Your task to perform on an android device: Go to wifi settings Image 0: 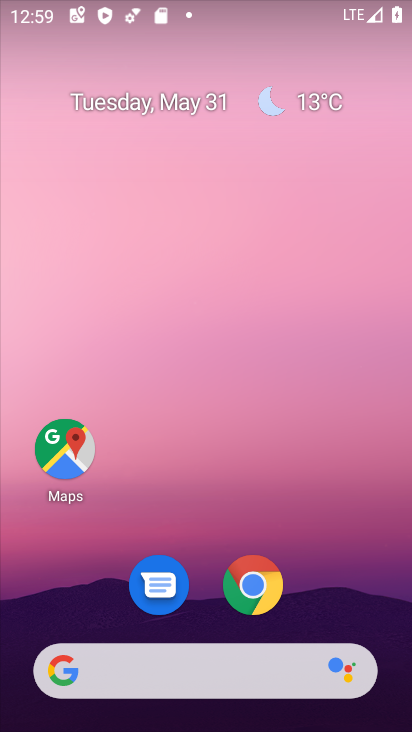
Step 0: drag from (328, 575) to (294, 9)
Your task to perform on an android device: Go to wifi settings Image 1: 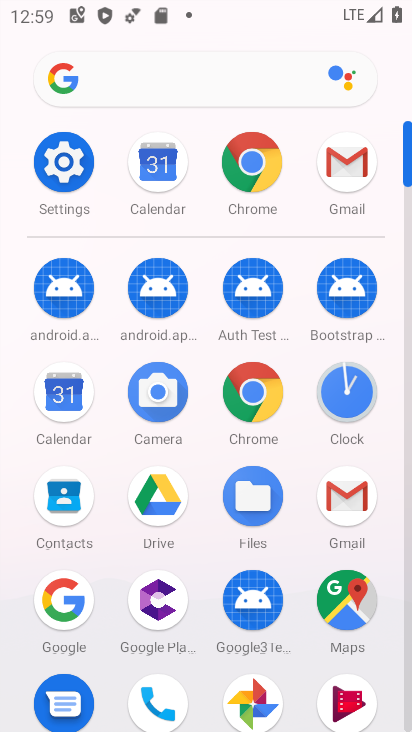
Step 1: click (60, 175)
Your task to perform on an android device: Go to wifi settings Image 2: 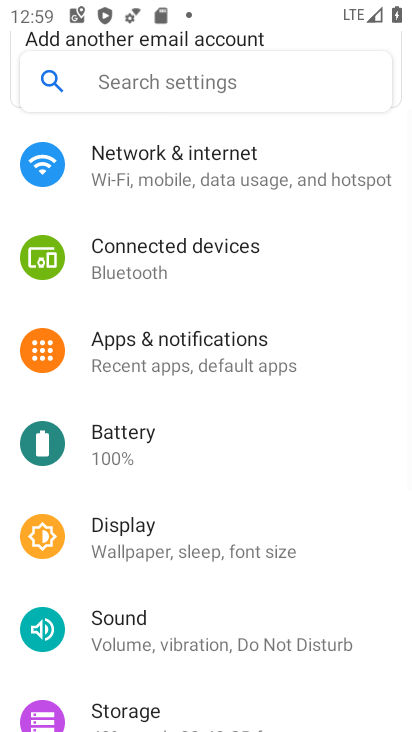
Step 2: drag from (198, 234) to (213, 459)
Your task to perform on an android device: Go to wifi settings Image 3: 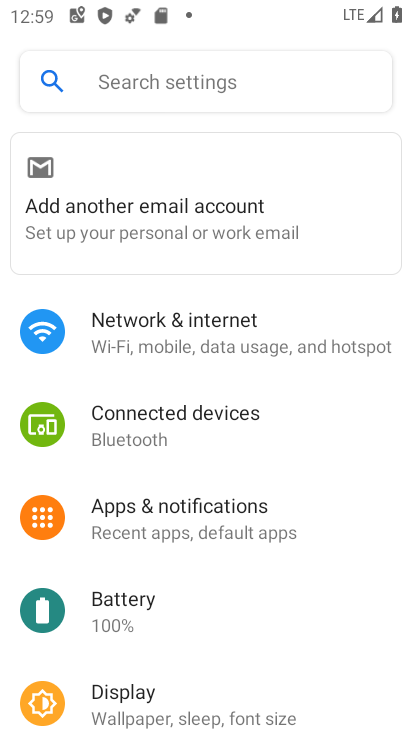
Step 3: click (263, 327)
Your task to perform on an android device: Go to wifi settings Image 4: 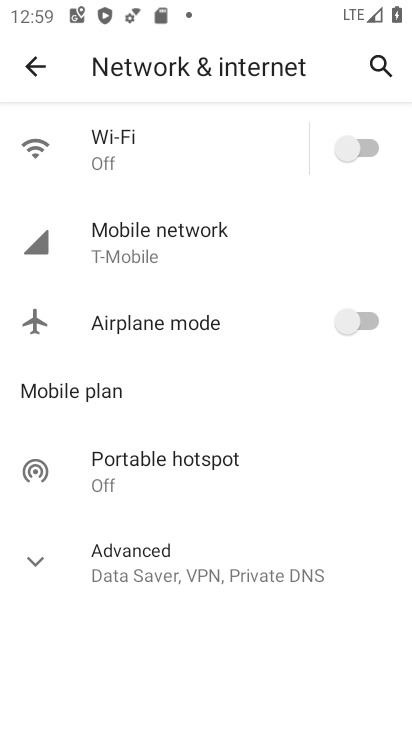
Step 4: click (185, 162)
Your task to perform on an android device: Go to wifi settings Image 5: 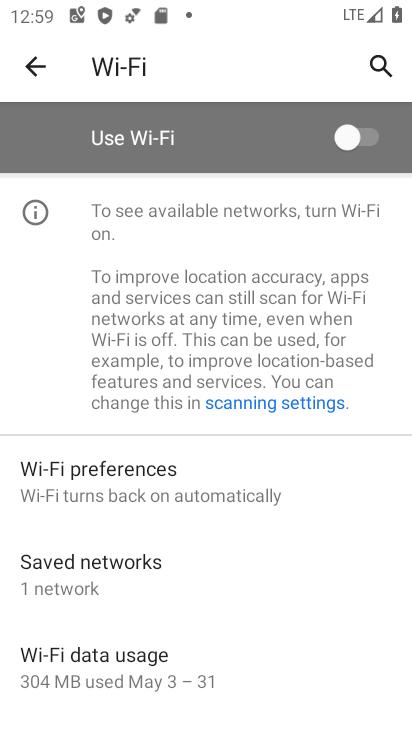
Step 5: task complete